Your task to perform on an android device: change notification settings in the gmail app Image 0: 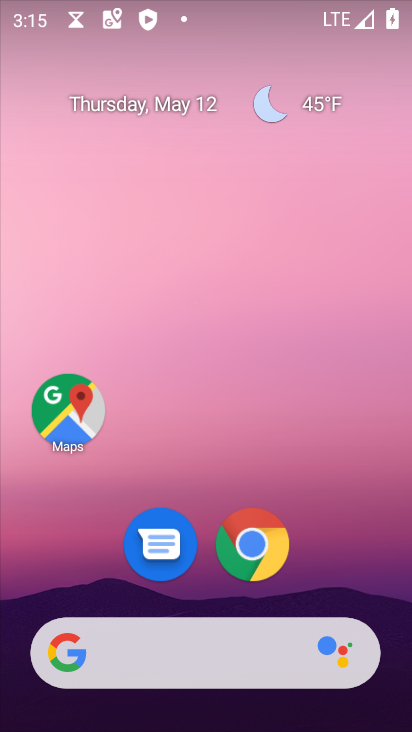
Step 0: drag from (336, 542) to (277, 35)
Your task to perform on an android device: change notification settings in the gmail app Image 1: 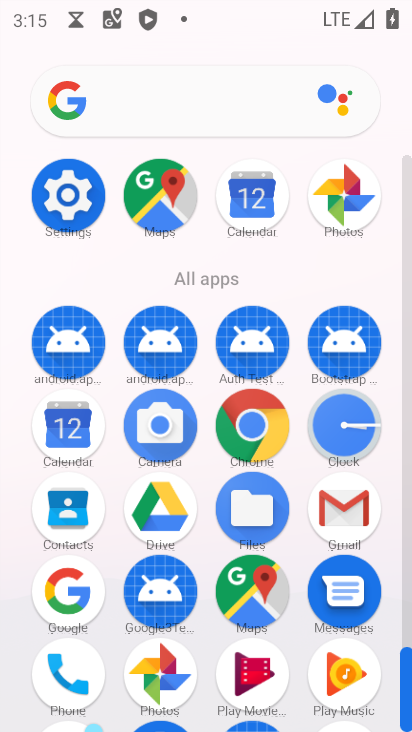
Step 1: click (335, 503)
Your task to perform on an android device: change notification settings in the gmail app Image 2: 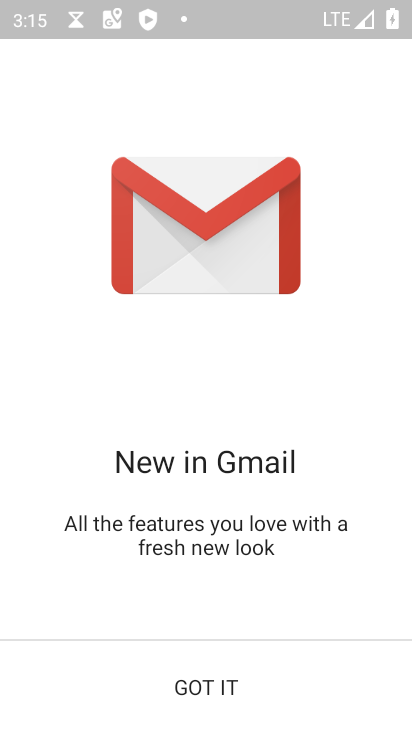
Step 2: click (265, 702)
Your task to perform on an android device: change notification settings in the gmail app Image 3: 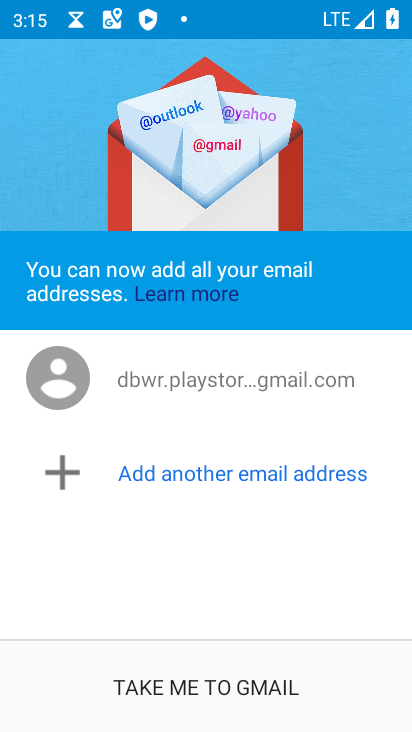
Step 3: click (256, 702)
Your task to perform on an android device: change notification settings in the gmail app Image 4: 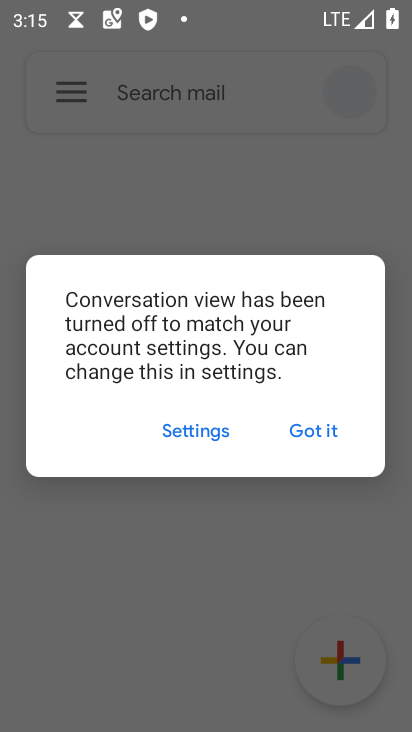
Step 4: click (305, 441)
Your task to perform on an android device: change notification settings in the gmail app Image 5: 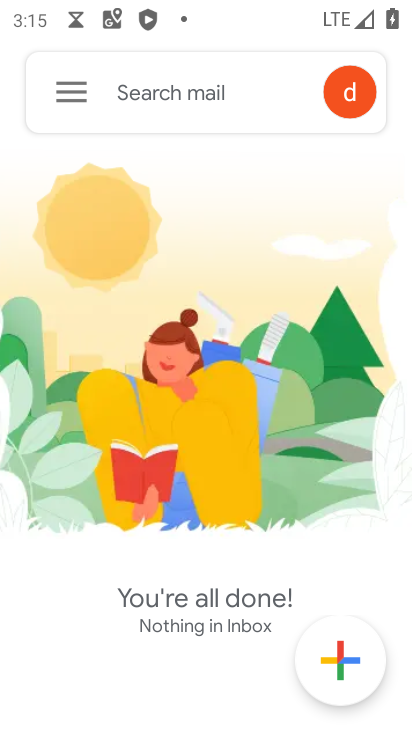
Step 5: click (66, 103)
Your task to perform on an android device: change notification settings in the gmail app Image 6: 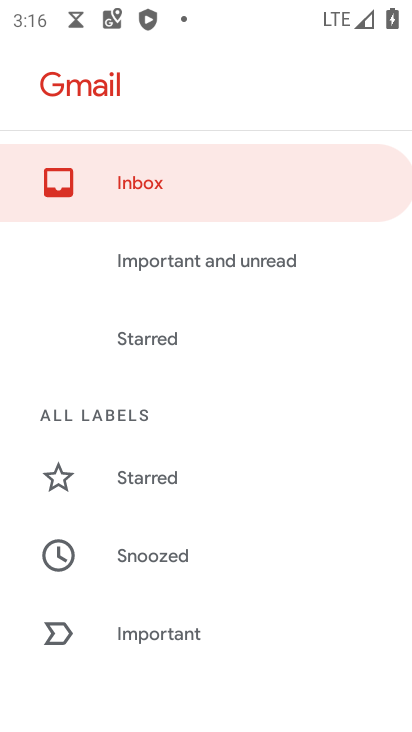
Step 6: drag from (218, 619) to (214, 264)
Your task to perform on an android device: change notification settings in the gmail app Image 7: 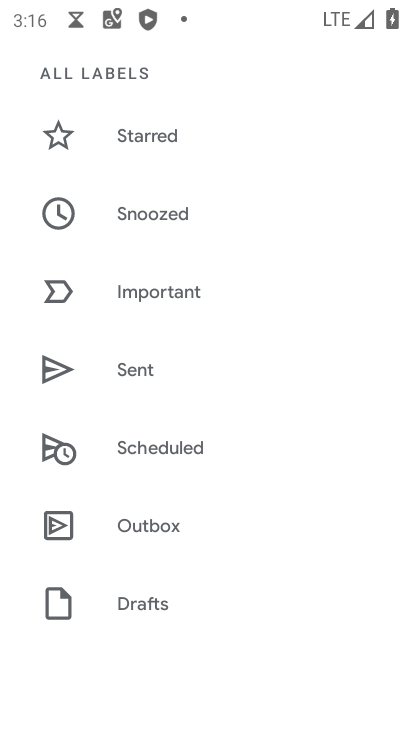
Step 7: drag from (183, 675) to (219, 332)
Your task to perform on an android device: change notification settings in the gmail app Image 8: 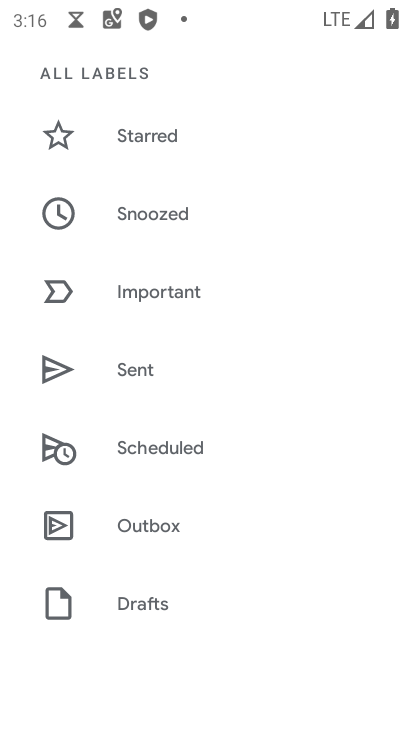
Step 8: drag from (216, 548) to (243, 258)
Your task to perform on an android device: change notification settings in the gmail app Image 9: 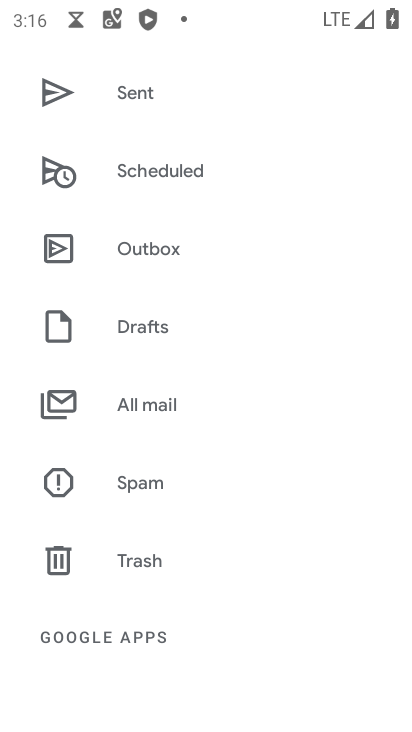
Step 9: drag from (269, 541) to (298, 119)
Your task to perform on an android device: change notification settings in the gmail app Image 10: 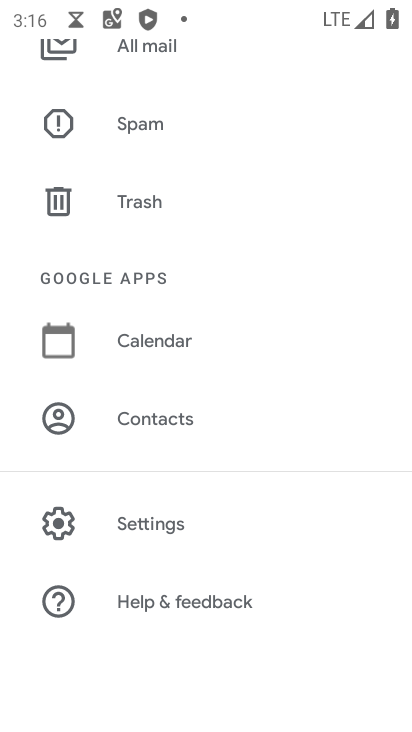
Step 10: click (214, 538)
Your task to perform on an android device: change notification settings in the gmail app Image 11: 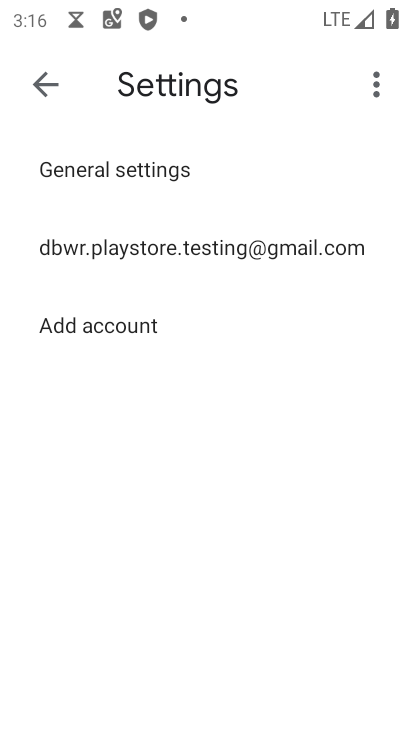
Step 11: click (210, 241)
Your task to perform on an android device: change notification settings in the gmail app Image 12: 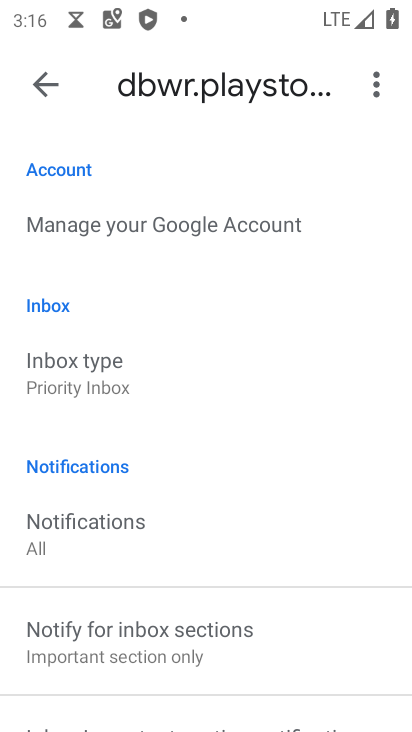
Step 12: drag from (107, 597) to (87, 368)
Your task to perform on an android device: change notification settings in the gmail app Image 13: 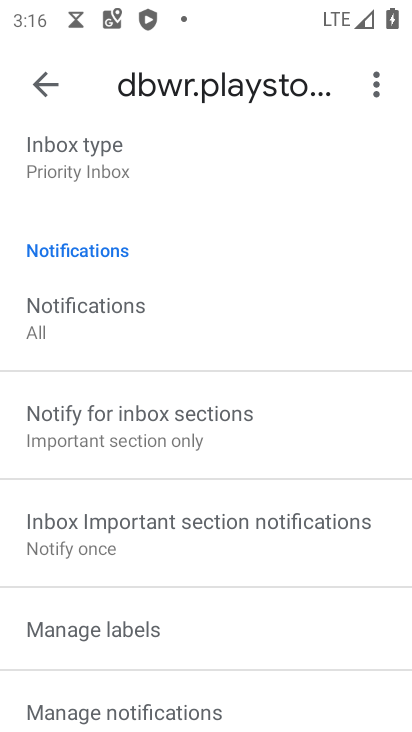
Step 13: drag from (128, 657) to (133, 530)
Your task to perform on an android device: change notification settings in the gmail app Image 14: 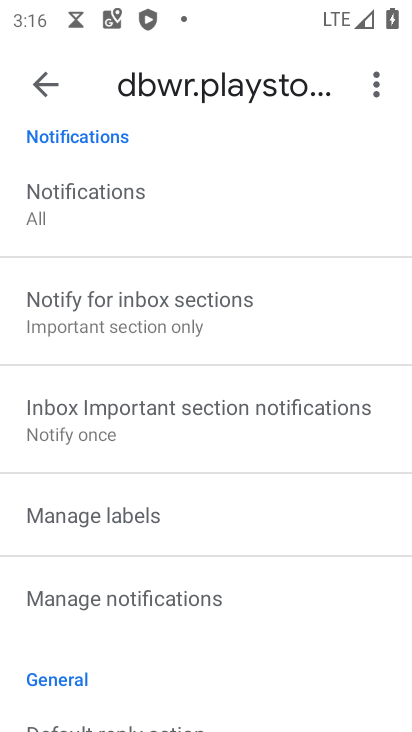
Step 14: click (141, 607)
Your task to perform on an android device: change notification settings in the gmail app Image 15: 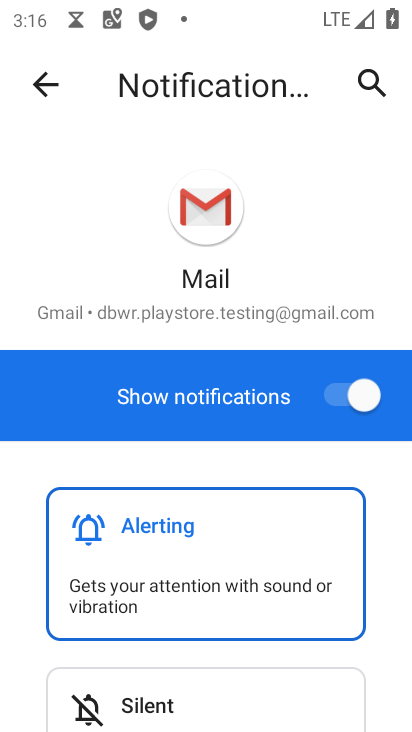
Step 15: click (340, 395)
Your task to perform on an android device: change notification settings in the gmail app Image 16: 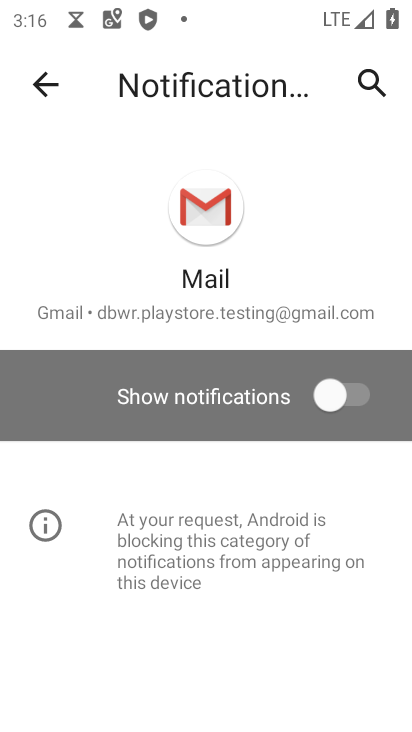
Step 16: task complete